Your task to perform on an android device: toggle notifications settings in the gmail app Image 0: 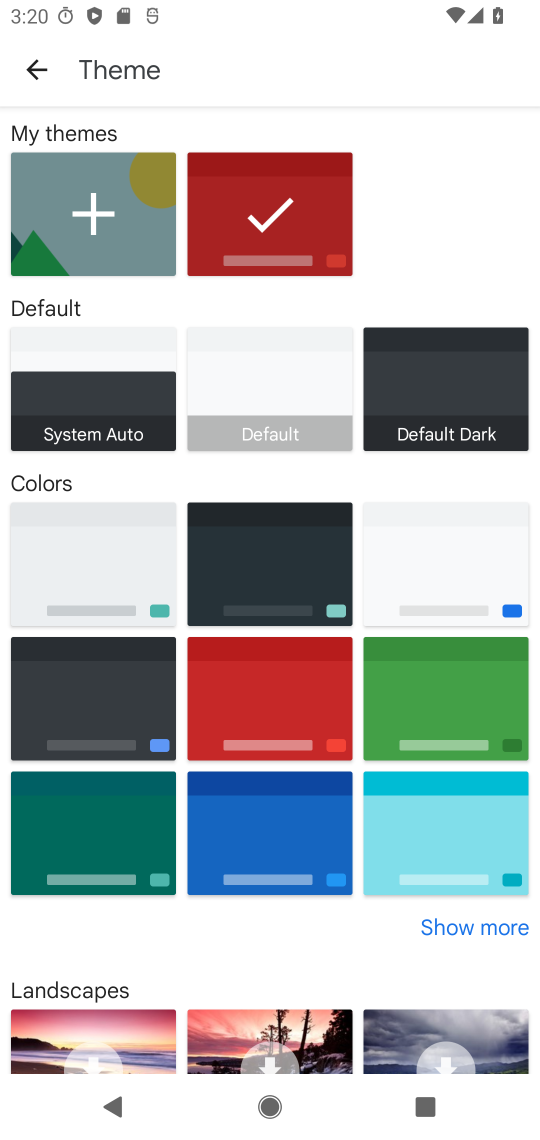
Step 0: press home button
Your task to perform on an android device: toggle notifications settings in the gmail app Image 1: 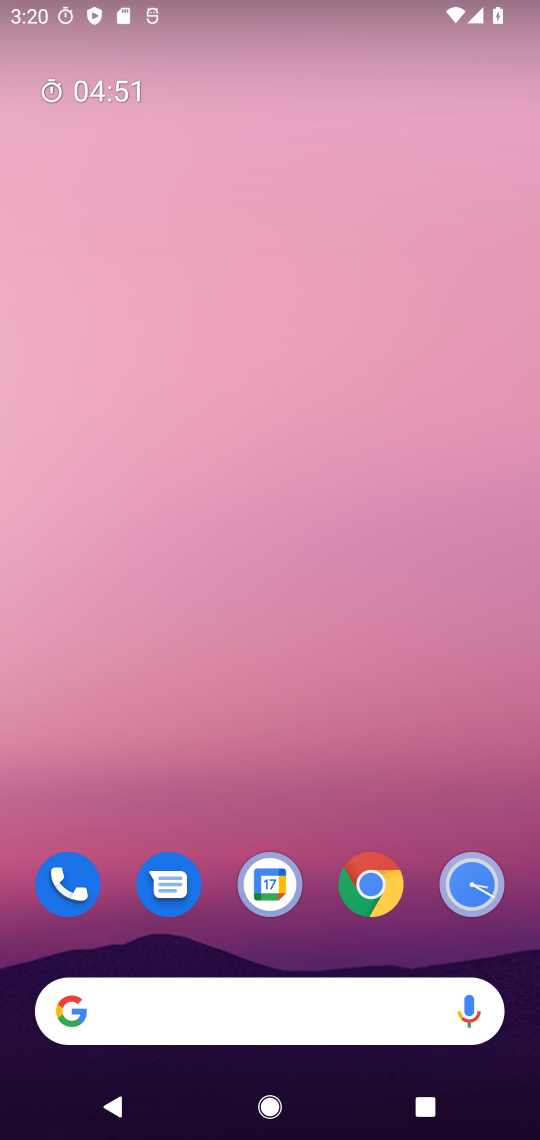
Step 1: click (328, 817)
Your task to perform on an android device: toggle notifications settings in the gmail app Image 2: 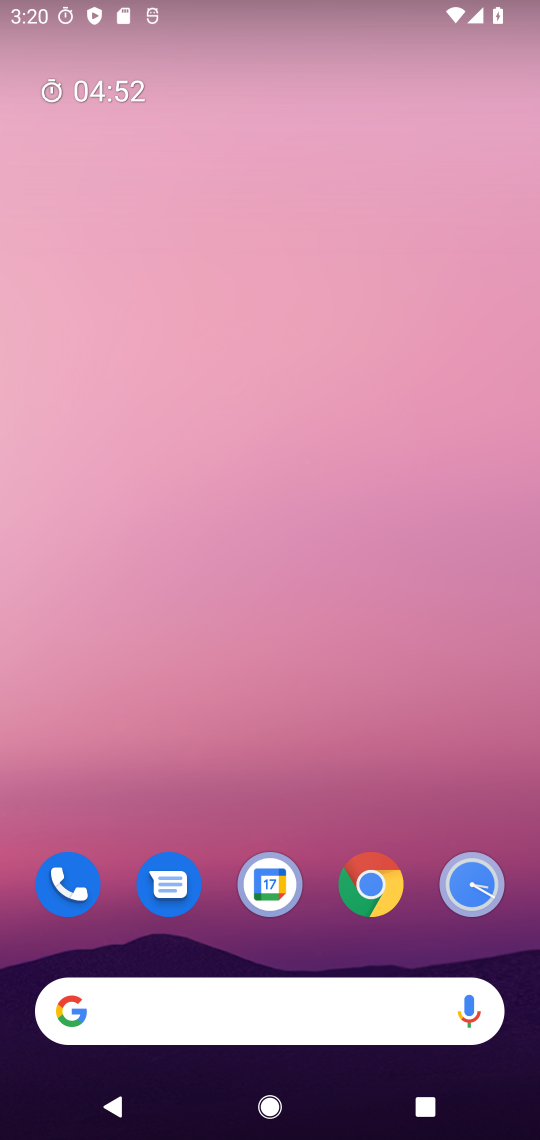
Step 2: drag from (328, 817) to (264, 120)
Your task to perform on an android device: toggle notifications settings in the gmail app Image 3: 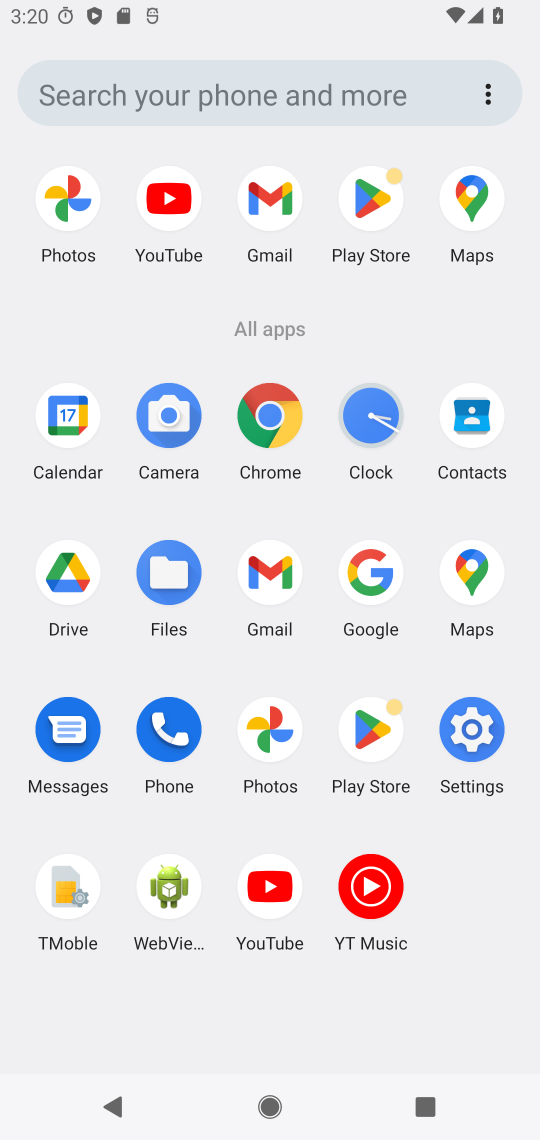
Step 3: click (264, 579)
Your task to perform on an android device: toggle notifications settings in the gmail app Image 4: 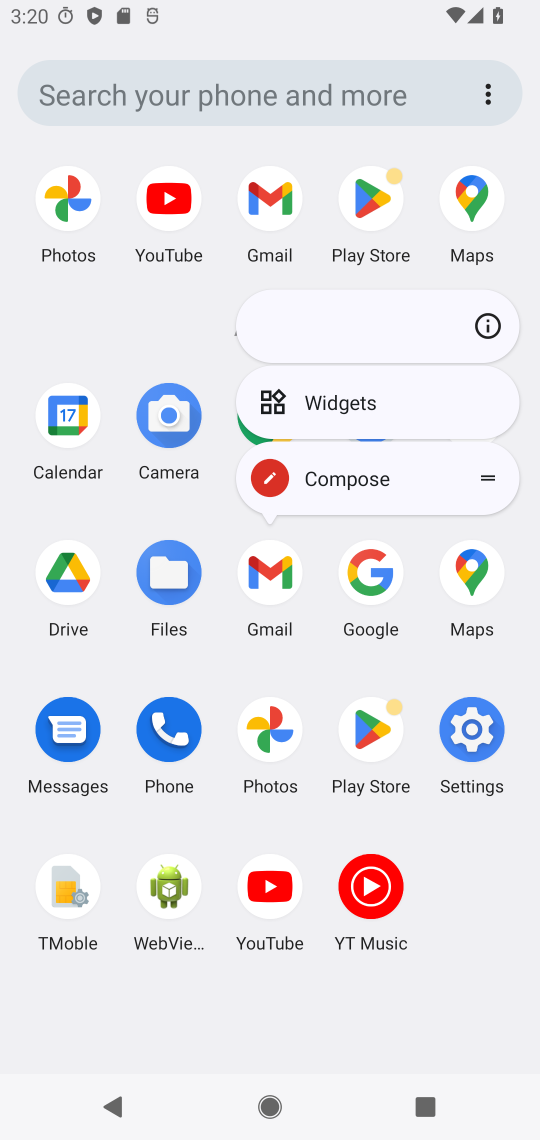
Step 4: click (489, 321)
Your task to perform on an android device: toggle notifications settings in the gmail app Image 5: 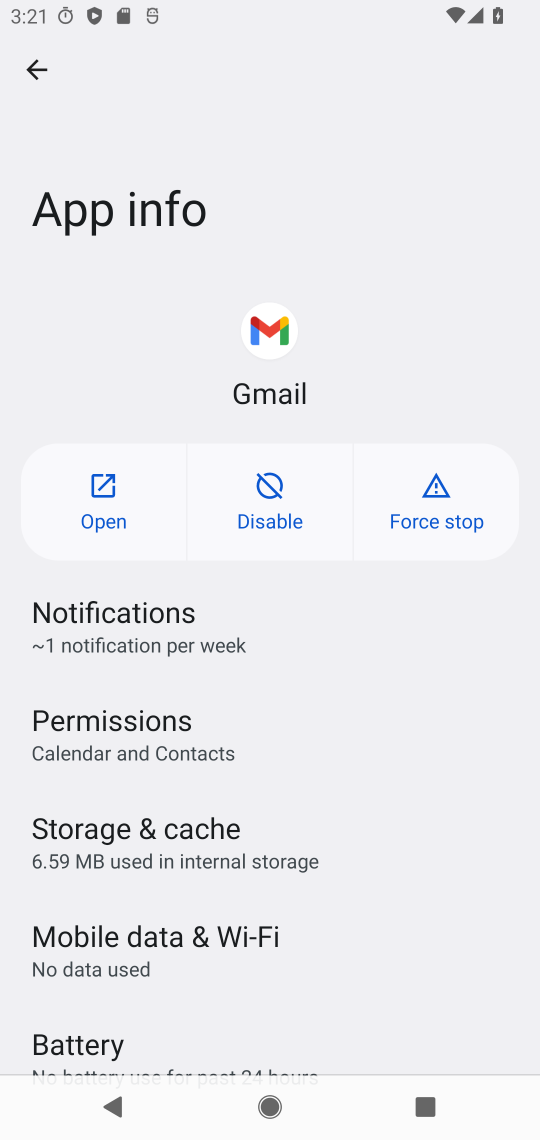
Step 5: click (168, 654)
Your task to perform on an android device: toggle notifications settings in the gmail app Image 6: 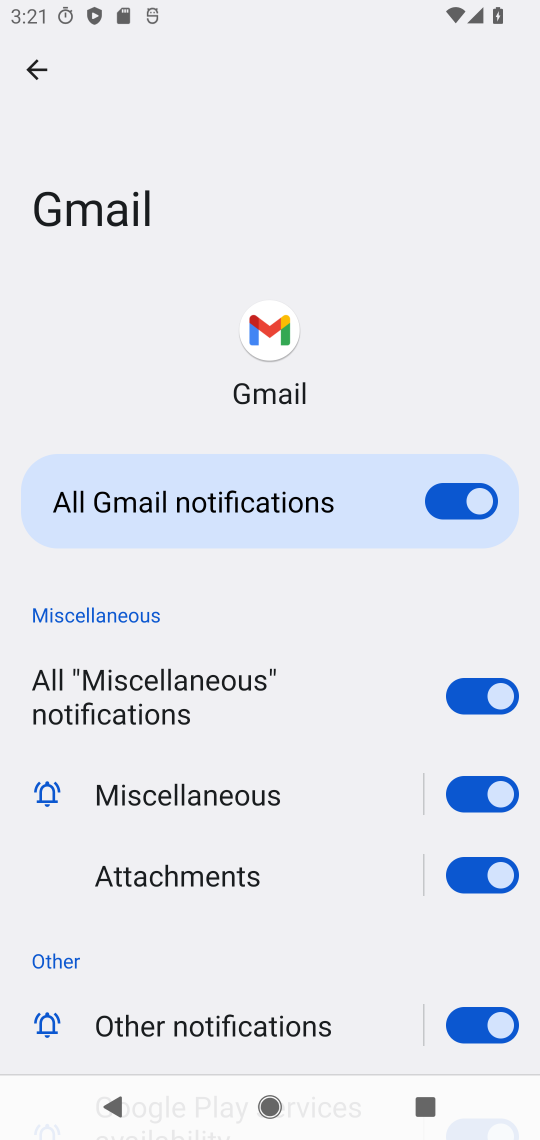
Step 6: click (454, 508)
Your task to perform on an android device: toggle notifications settings in the gmail app Image 7: 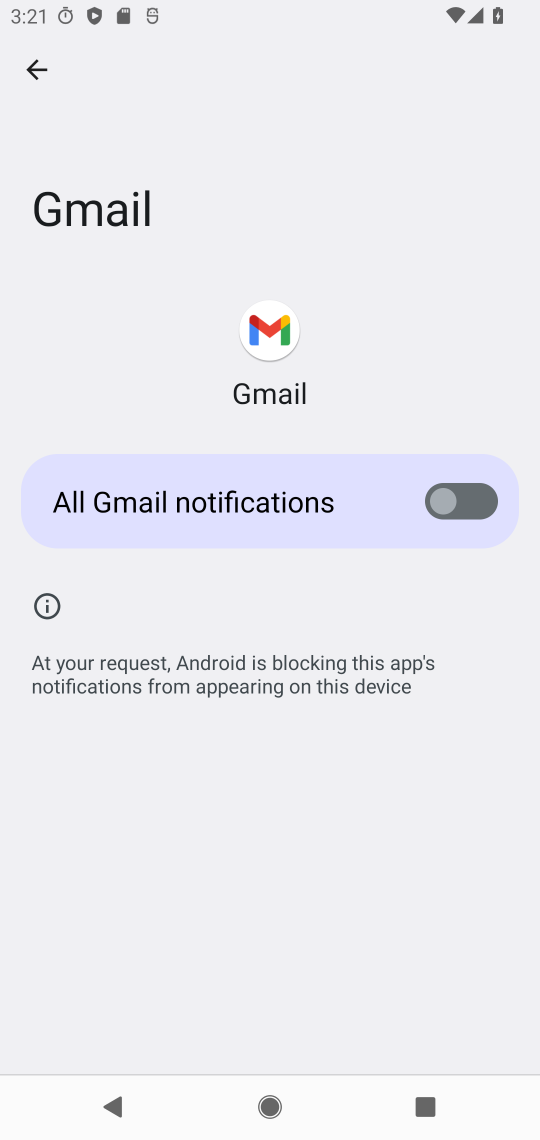
Step 7: task complete